Your task to perform on an android device: Open calendar and show me the second week of next month Image 0: 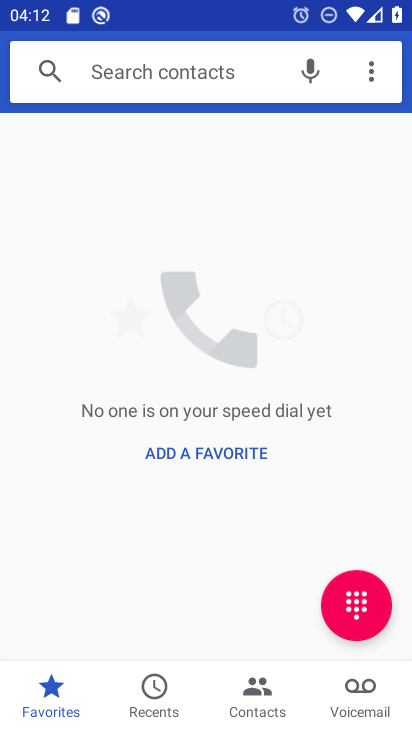
Step 0: press home button
Your task to perform on an android device: Open calendar and show me the second week of next month Image 1: 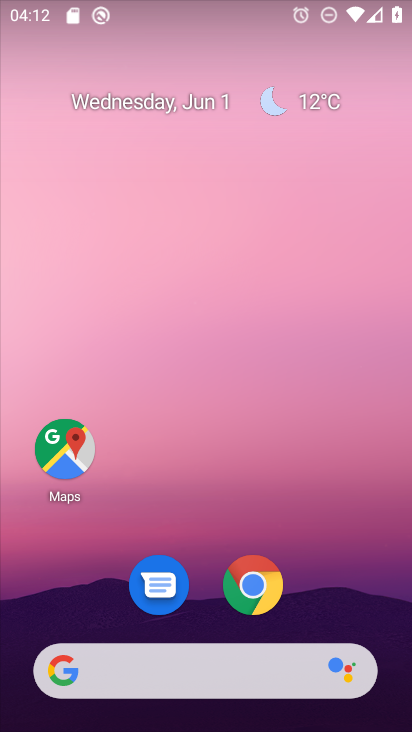
Step 1: drag from (275, 515) to (224, 13)
Your task to perform on an android device: Open calendar and show me the second week of next month Image 2: 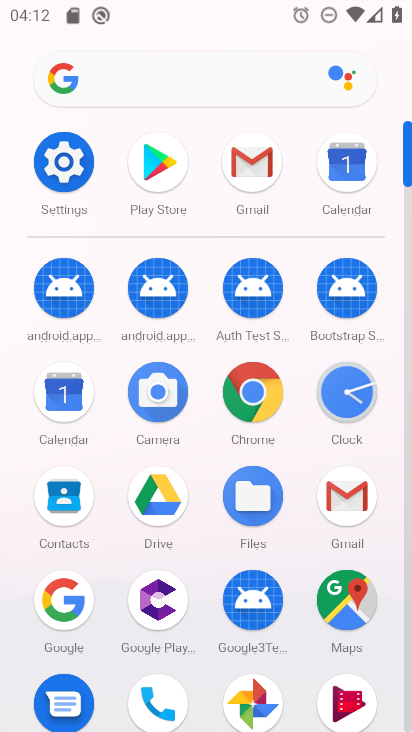
Step 2: click (362, 164)
Your task to perform on an android device: Open calendar and show me the second week of next month Image 3: 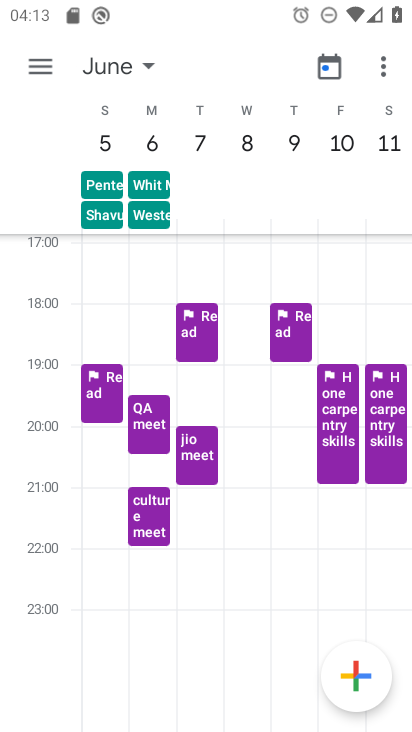
Step 3: task complete